Your task to perform on an android device: turn off smart reply in the gmail app Image 0: 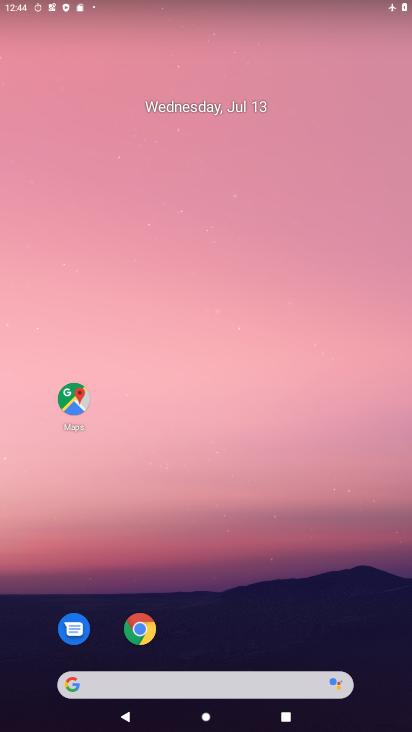
Step 0: drag from (208, 612) to (174, 236)
Your task to perform on an android device: turn off smart reply in the gmail app Image 1: 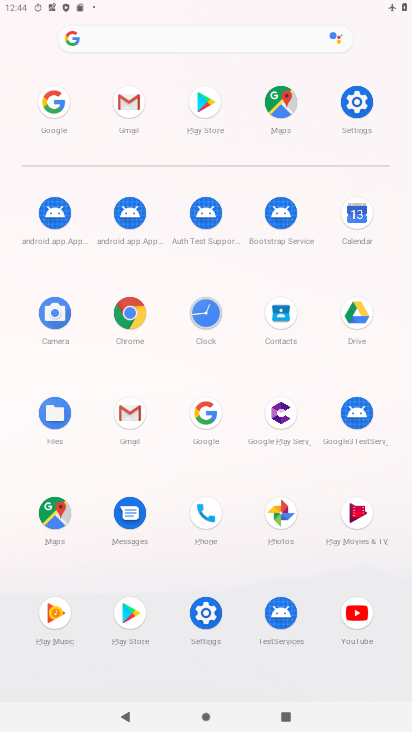
Step 1: click (120, 420)
Your task to perform on an android device: turn off smart reply in the gmail app Image 2: 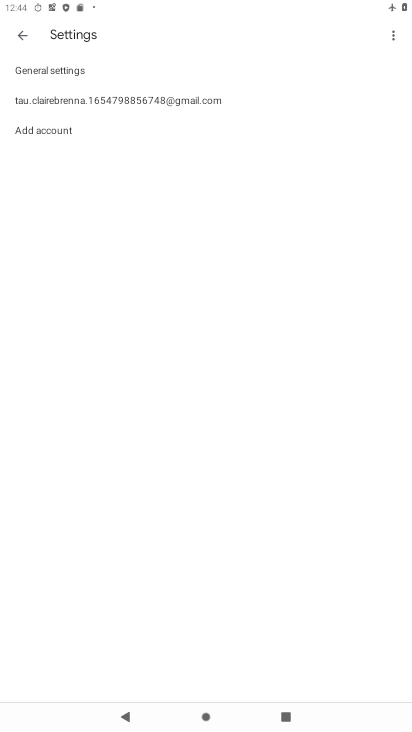
Step 2: click (114, 105)
Your task to perform on an android device: turn off smart reply in the gmail app Image 3: 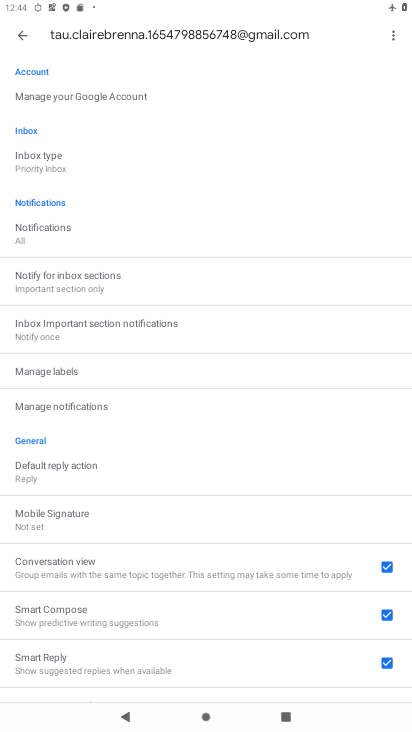
Step 3: drag from (177, 591) to (211, 340)
Your task to perform on an android device: turn off smart reply in the gmail app Image 4: 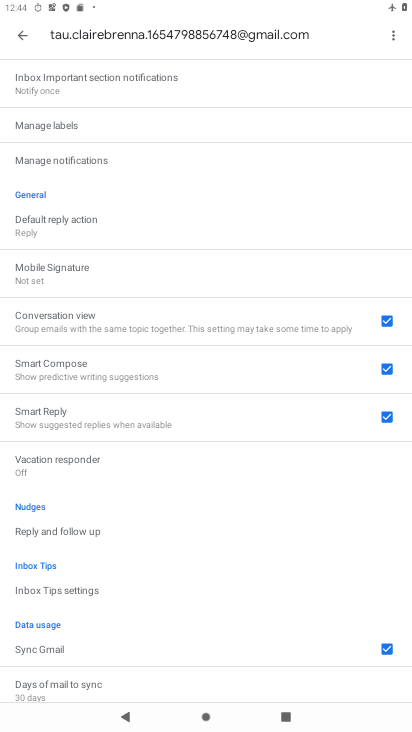
Step 4: click (378, 416)
Your task to perform on an android device: turn off smart reply in the gmail app Image 5: 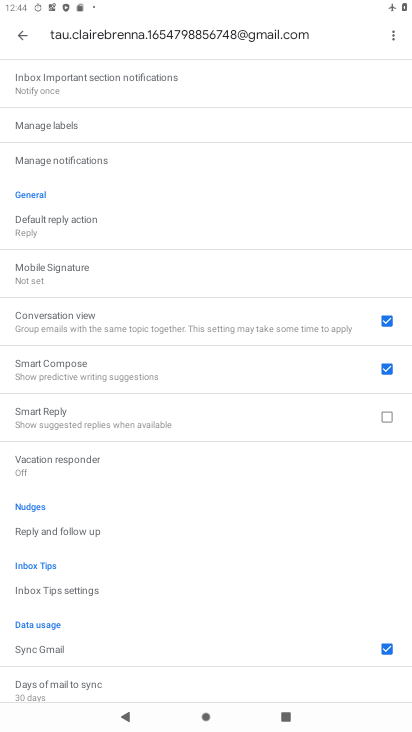
Step 5: task complete